Your task to perform on an android device: Is it going to rain today? Image 0: 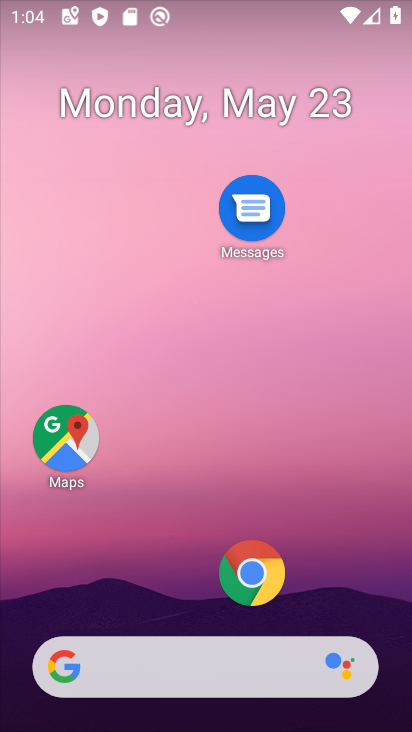
Step 0: drag from (45, 309) to (371, 288)
Your task to perform on an android device: Is it going to rain today? Image 1: 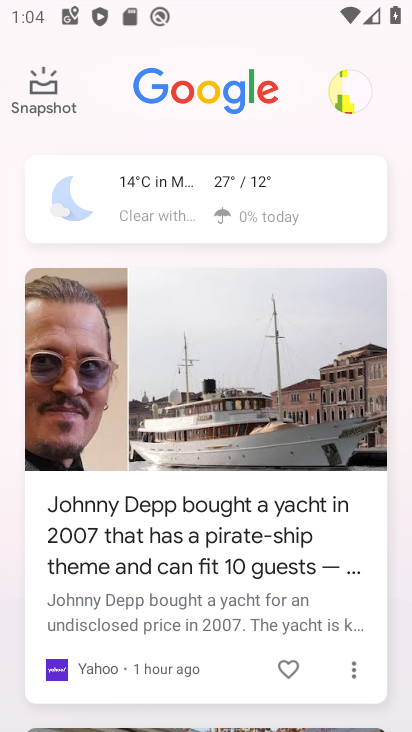
Step 1: click (262, 212)
Your task to perform on an android device: Is it going to rain today? Image 2: 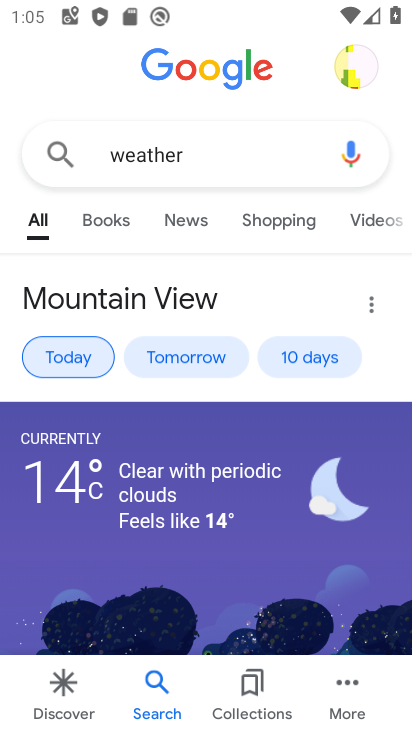
Step 2: task complete